Your task to perform on an android device: turn on javascript in the chrome app Image 0: 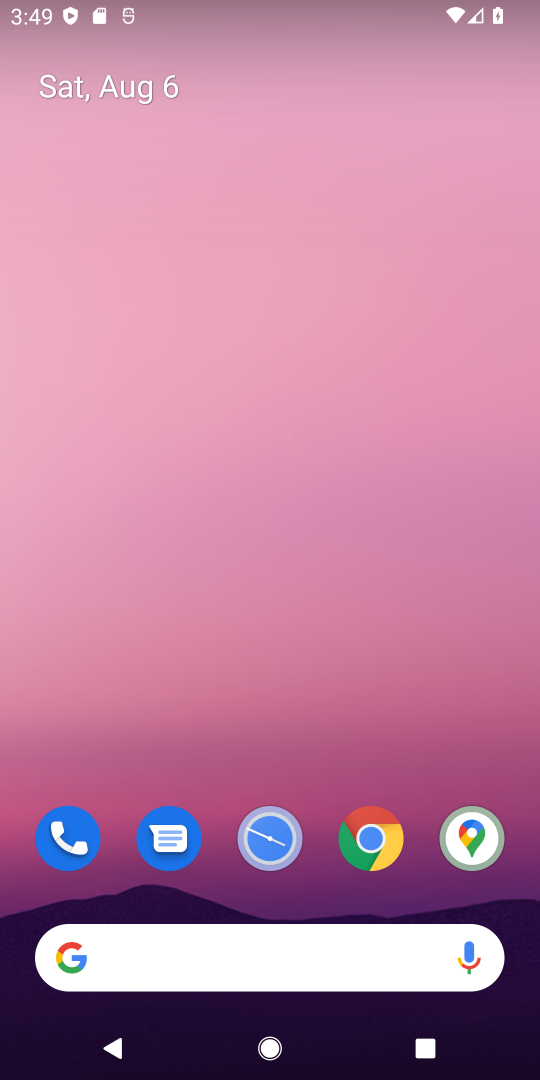
Step 0: drag from (308, 941) to (169, 0)
Your task to perform on an android device: turn on javascript in the chrome app Image 1: 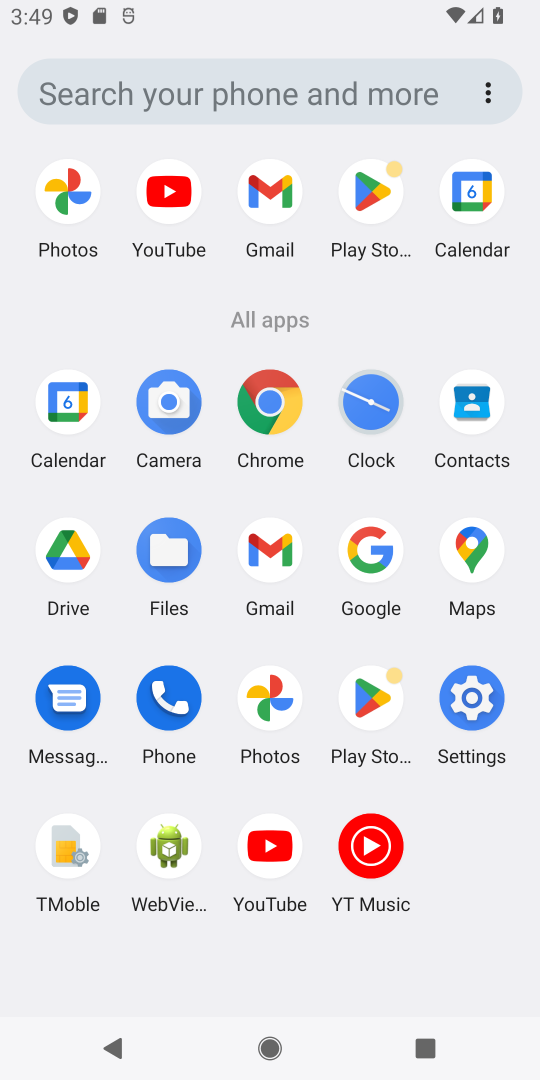
Step 1: click (269, 396)
Your task to perform on an android device: turn on javascript in the chrome app Image 2: 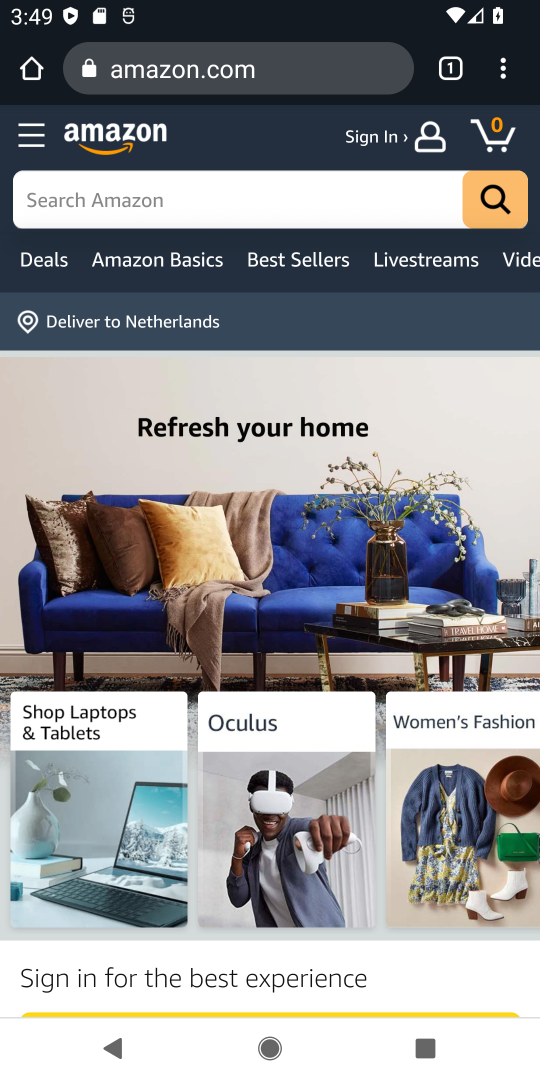
Step 2: click (503, 53)
Your task to perform on an android device: turn on javascript in the chrome app Image 3: 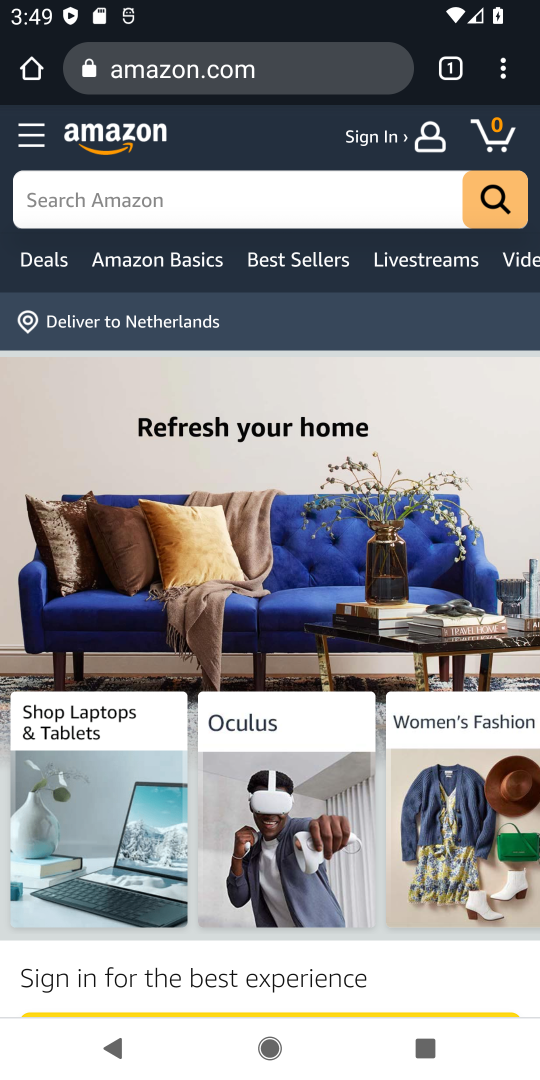
Step 3: click (506, 68)
Your task to perform on an android device: turn on javascript in the chrome app Image 4: 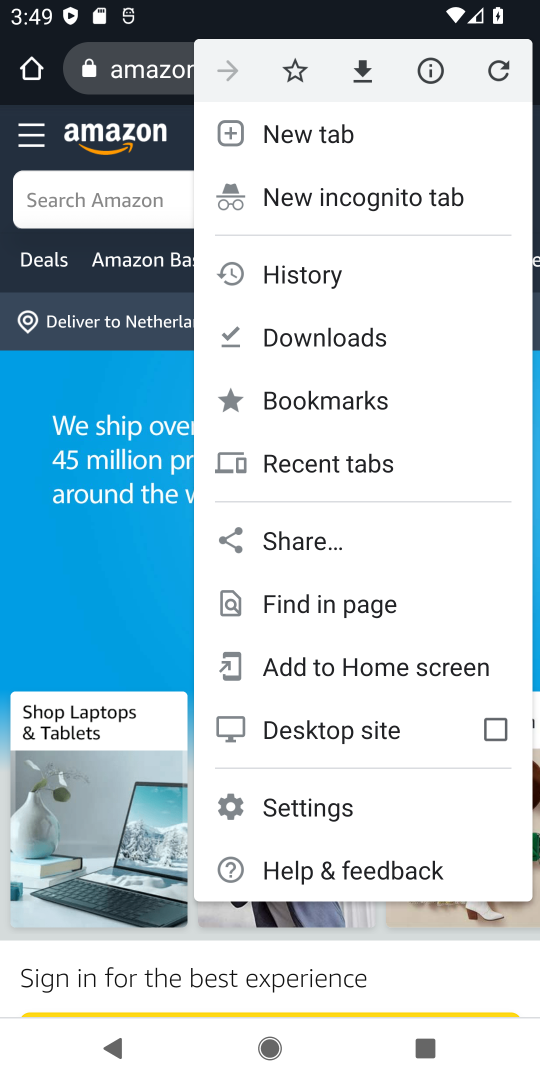
Step 4: click (325, 808)
Your task to perform on an android device: turn on javascript in the chrome app Image 5: 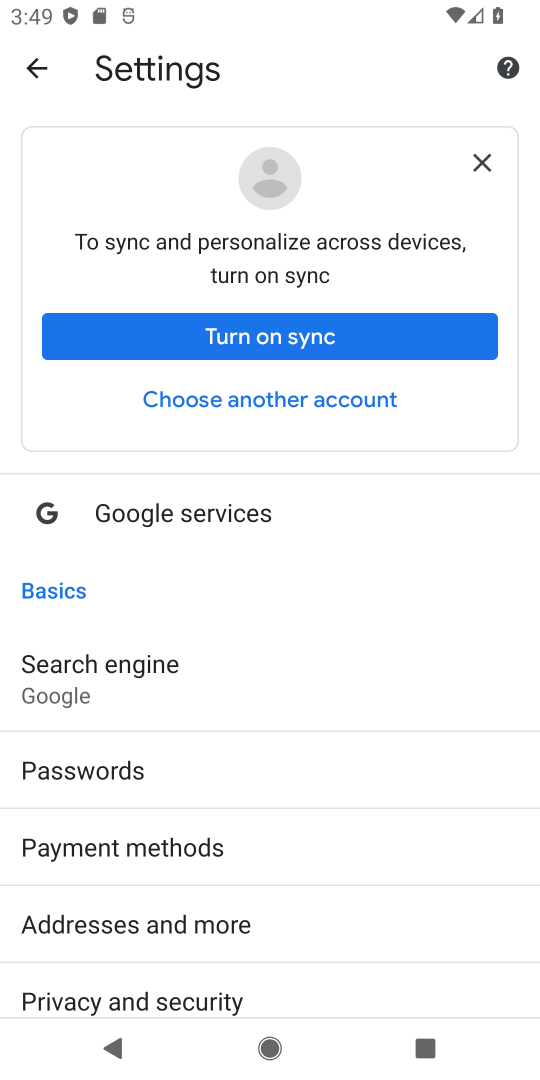
Step 5: drag from (455, 990) to (102, 71)
Your task to perform on an android device: turn on javascript in the chrome app Image 6: 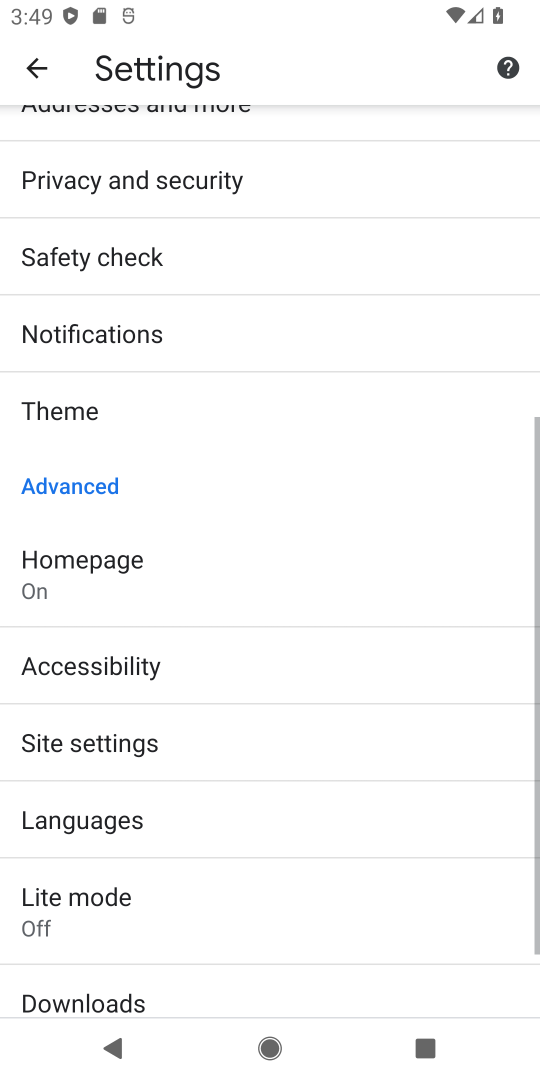
Step 6: click (142, 734)
Your task to perform on an android device: turn on javascript in the chrome app Image 7: 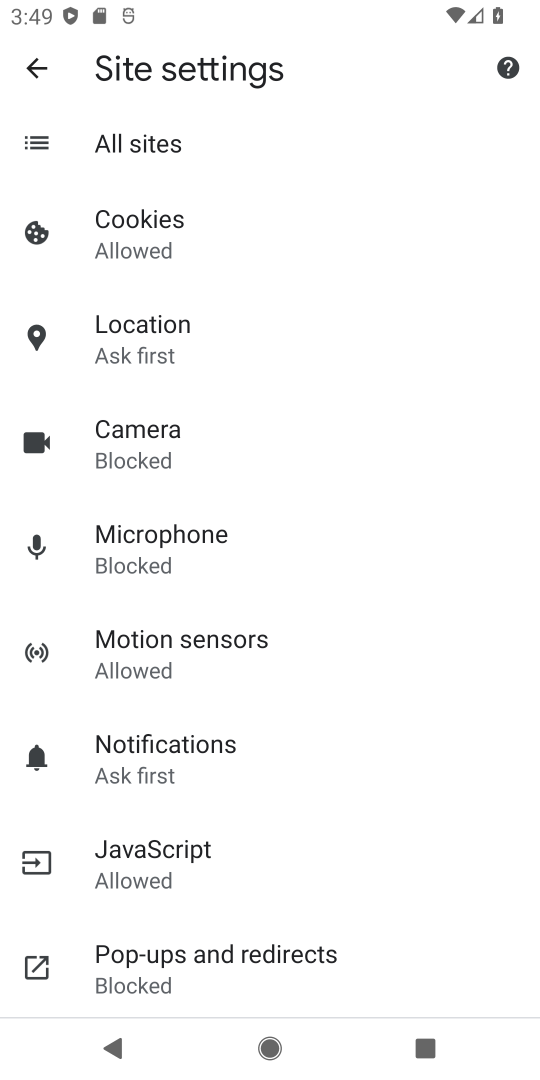
Step 7: click (248, 866)
Your task to perform on an android device: turn on javascript in the chrome app Image 8: 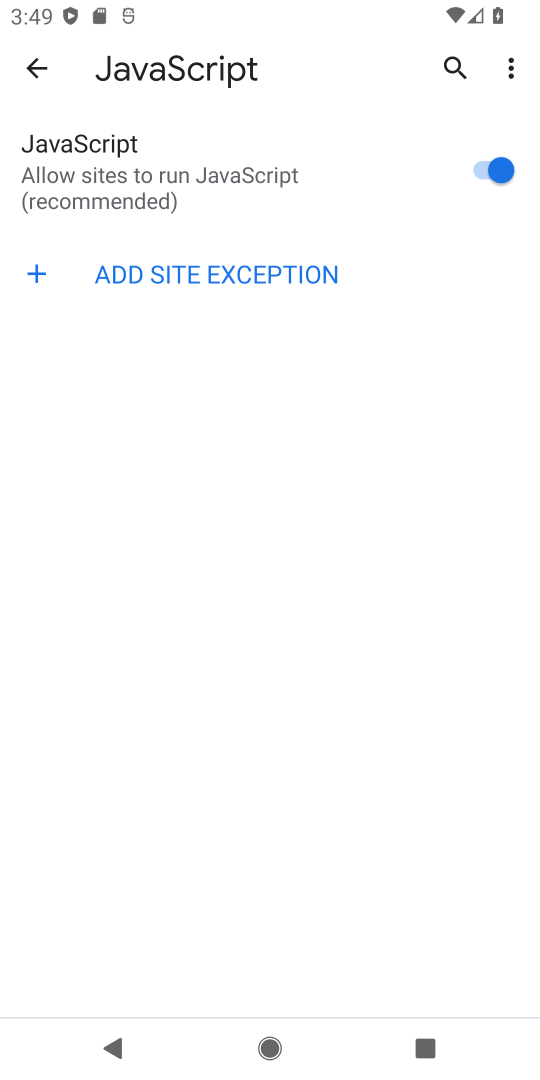
Step 8: task complete